Your task to perform on an android device: open wifi settings Image 0: 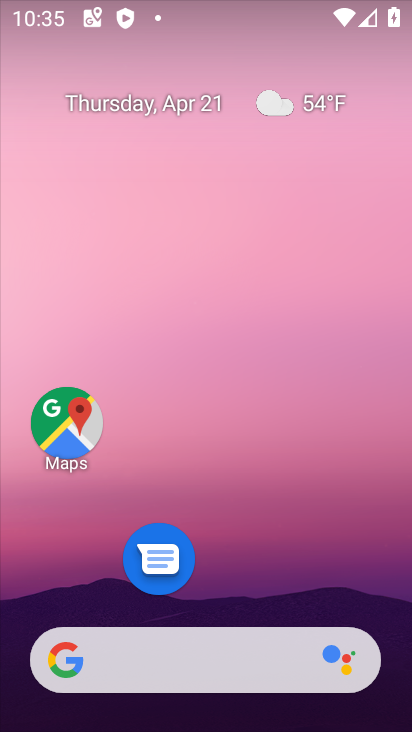
Step 0: drag from (108, 47) to (184, 481)
Your task to perform on an android device: open wifi settings Image 1: 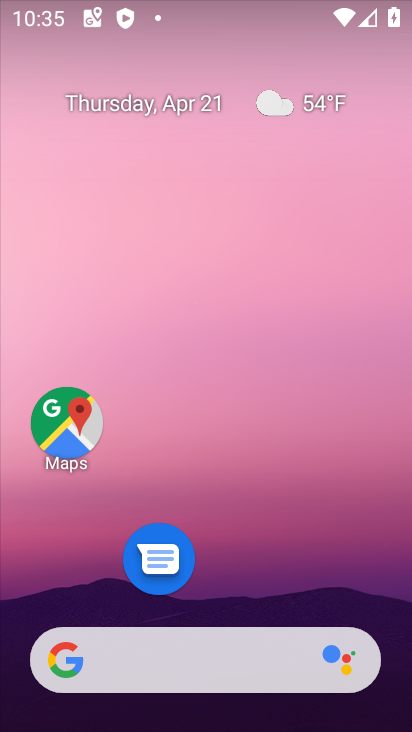
Step 1: drag from (99, 10) to (114, 518)
Your task to perform on an android device: open wifi settings Image 2: 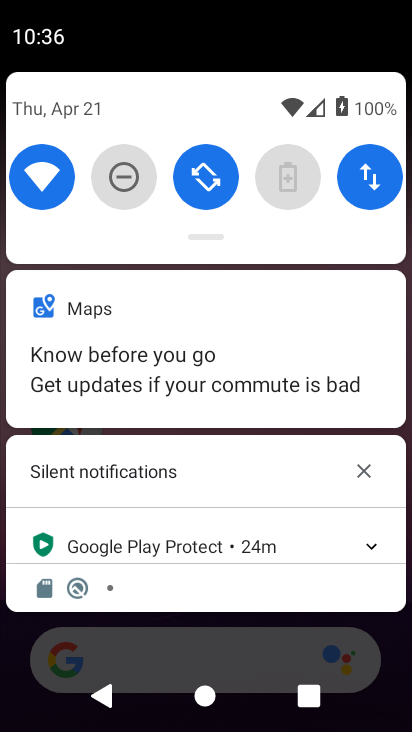
Step 2: click (37, 167)
Your task to perform on an android device: open wifi settings Image 3: 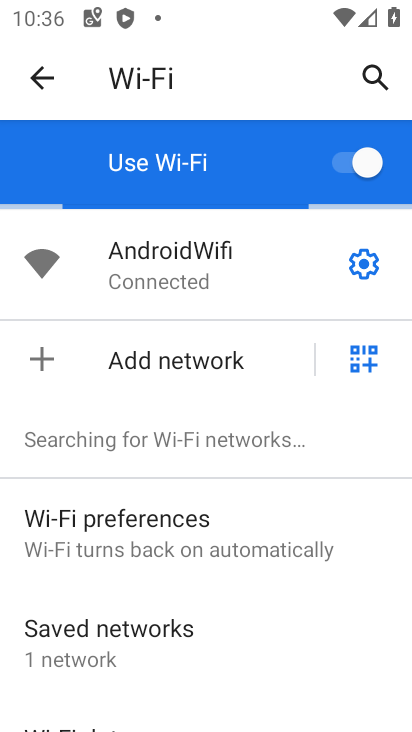
Step 3: task complete